Your task to perform on an android device: find photos in the google photos app Image 0: 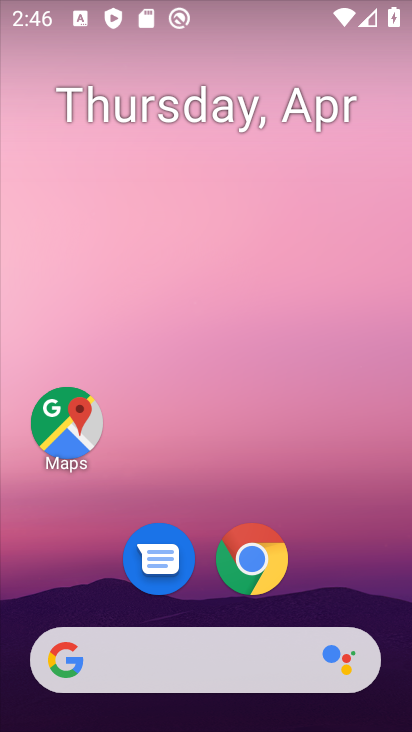
Step 0: drag from (321, 601) to (335, 64)
Your task to perform on an android device: find photos in the google photos app Image 1: 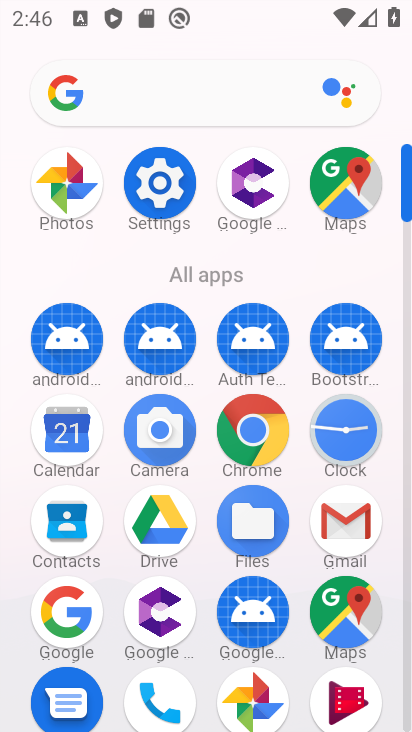
Step 1: drag from (210, 597) to (225, 202)
Your task to perform on an android device: find photos in the google photos app Image 2: 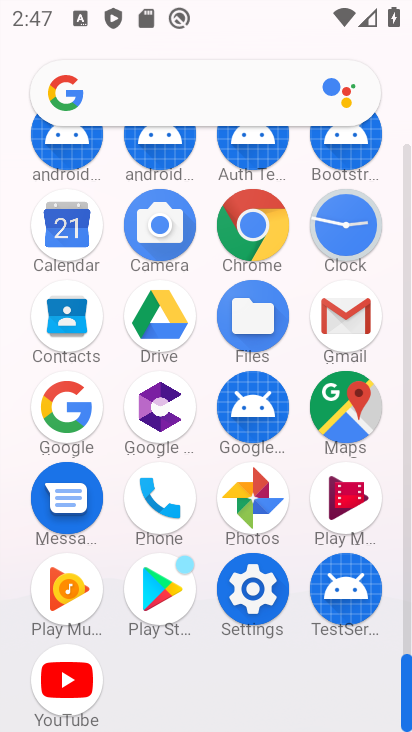
Step 2: click (256, 481)
Your task to perform on an android device: find photos in the google photos app Image 3: 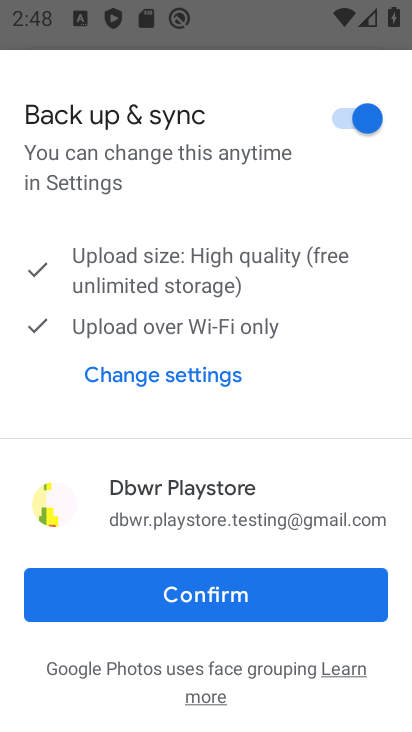
Step 3: click (238, 570)
Your task to perform on an android device: find photos in the google photos app Image 4: 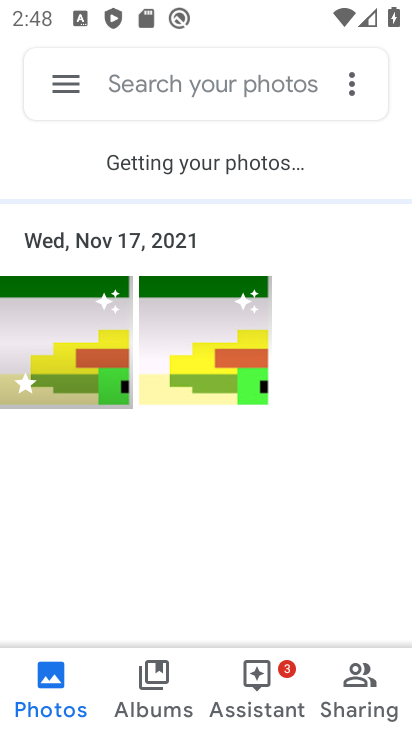
Step 4: click (46, 320)
Your task to perform on an android device: find photos in the google photos app Image 5: 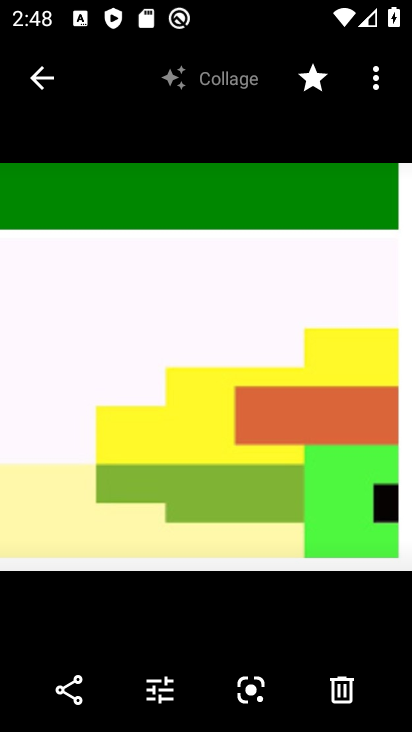
Step 5: task complete